Your task to perform on an android device: Clear all items from cart on walmart. Search for "amazon basics triple a" on walmart, select the first entry, add it to the cart, then select checkout. Image 0: 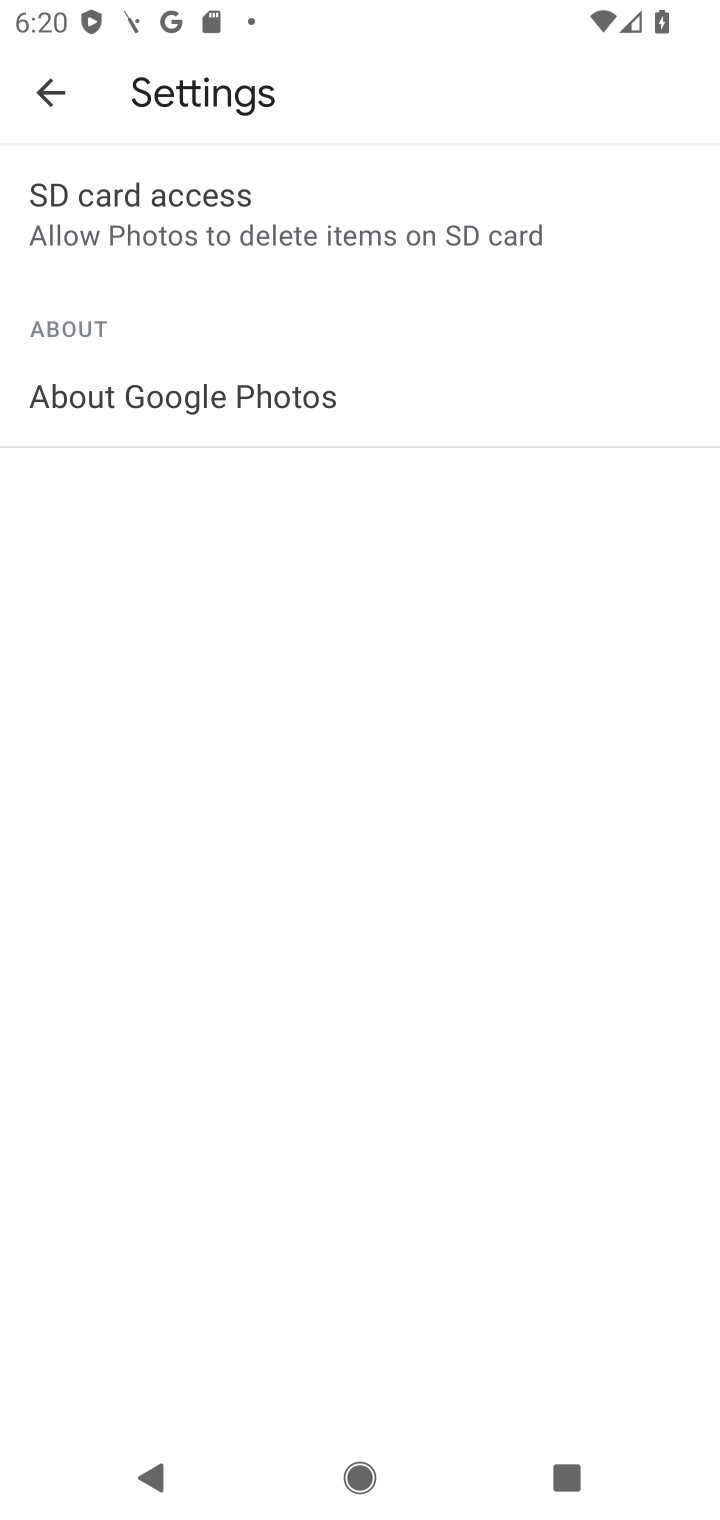
Step 0: press home button
Your task to perform on an android device: Clear all items from cart on walmart. Search for "amazon basics triple a" on walmart, select the first entry, add it to the cart, then select checkout. Image 1: 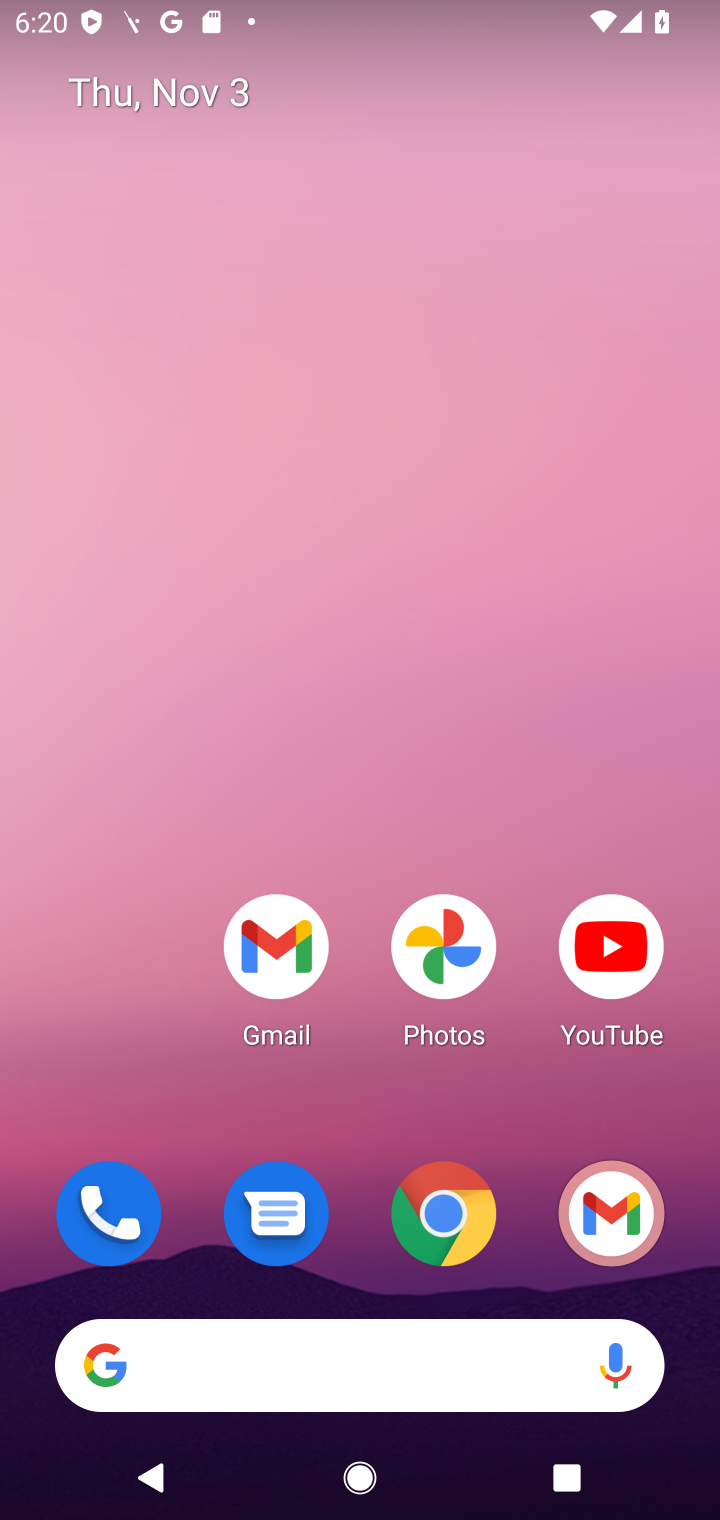
Step 1: click (458, 1219)
Your task to perform on an android device: Clear all items from cart on walmart. Search for "amazon basics triple a" on walmart, select the first entry, add it to the cart, then select checkout. Image 2: 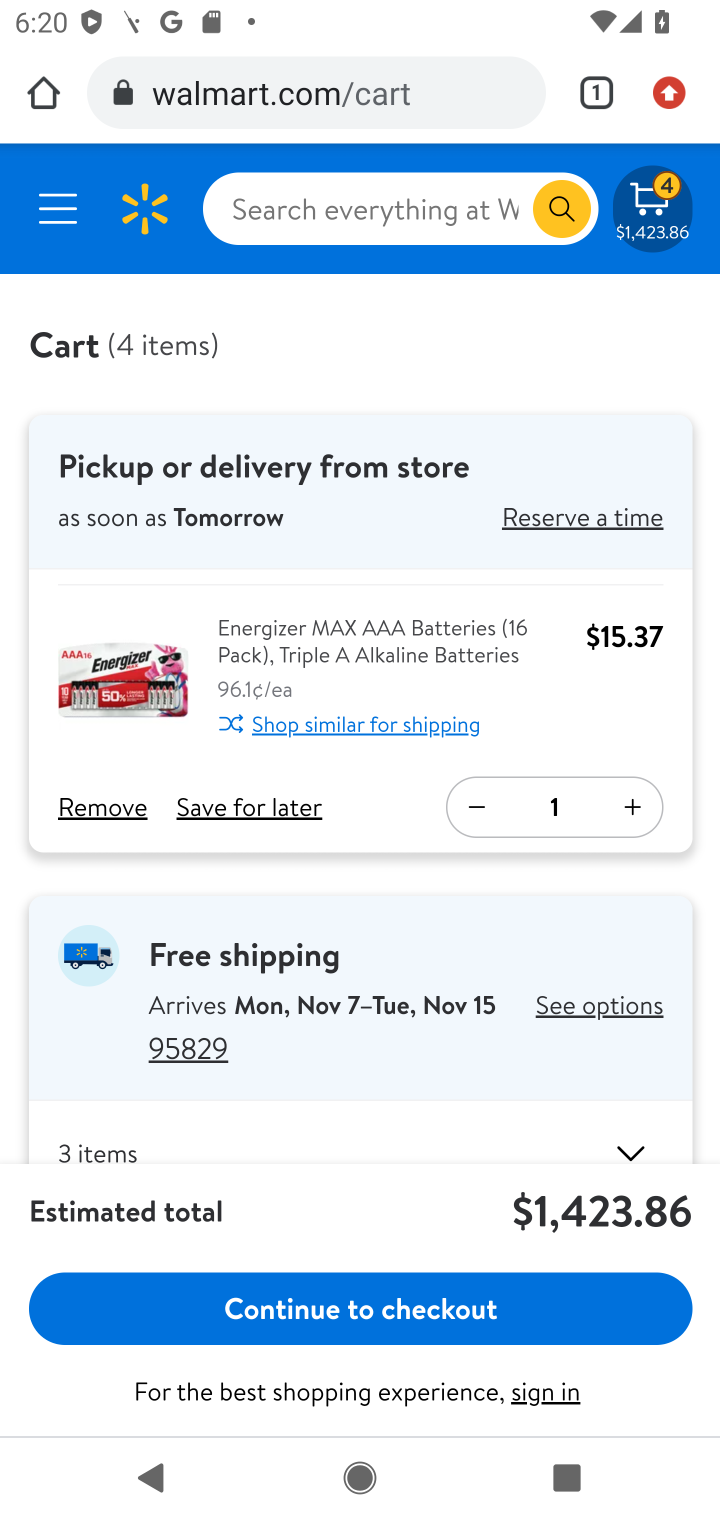
Step 2: click (655, 227)
Your task to perform on an android device: Clear all items from cart on walmart. Search for "amazon basics triple a" on walmart, select the first entry, add it to the cart, then select checkout. Image 3: 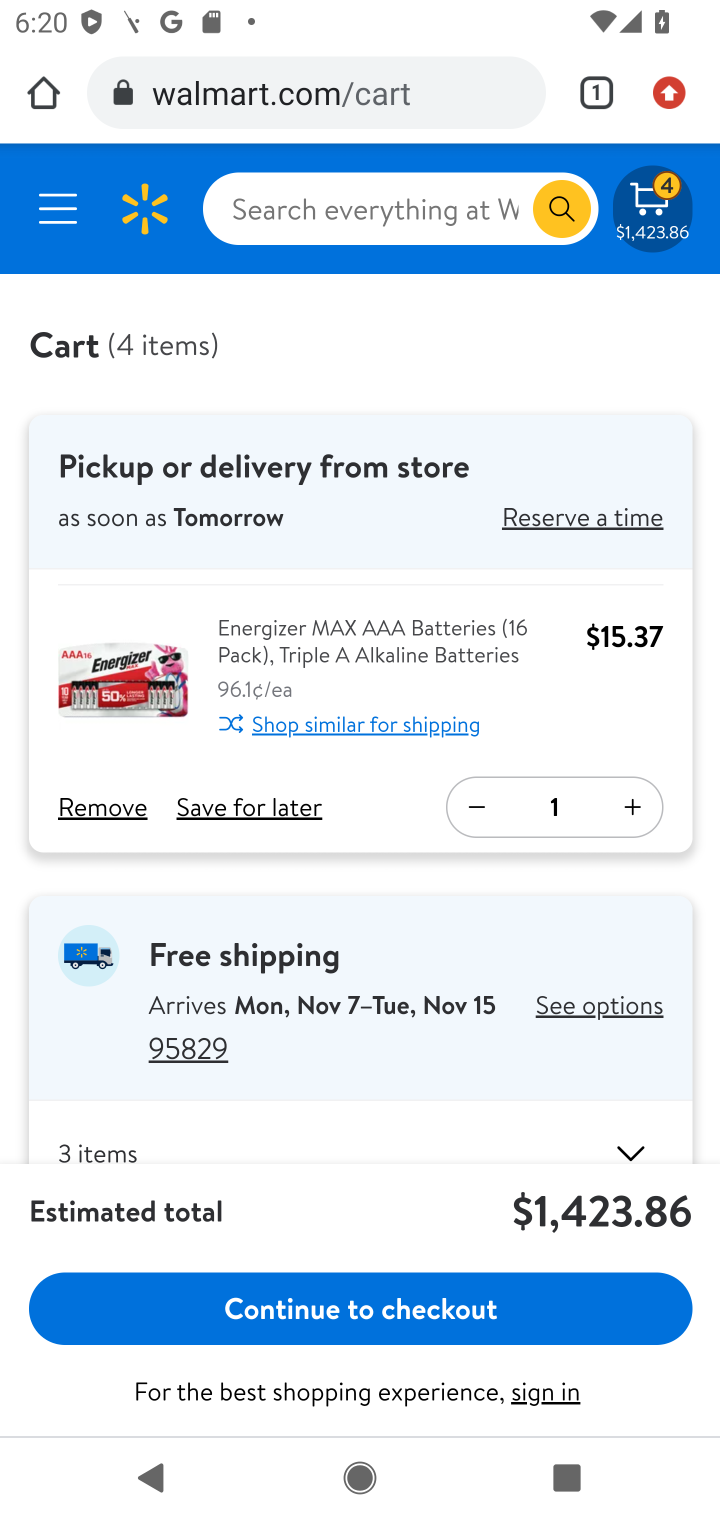
Step 3: click (106, 809)
Your task to perform on an android device: Clear all items from cart on walmart. Search for "amazon basics triple a" on walmart, select the first entry, add it to the cart, then select checkout. Image 4: 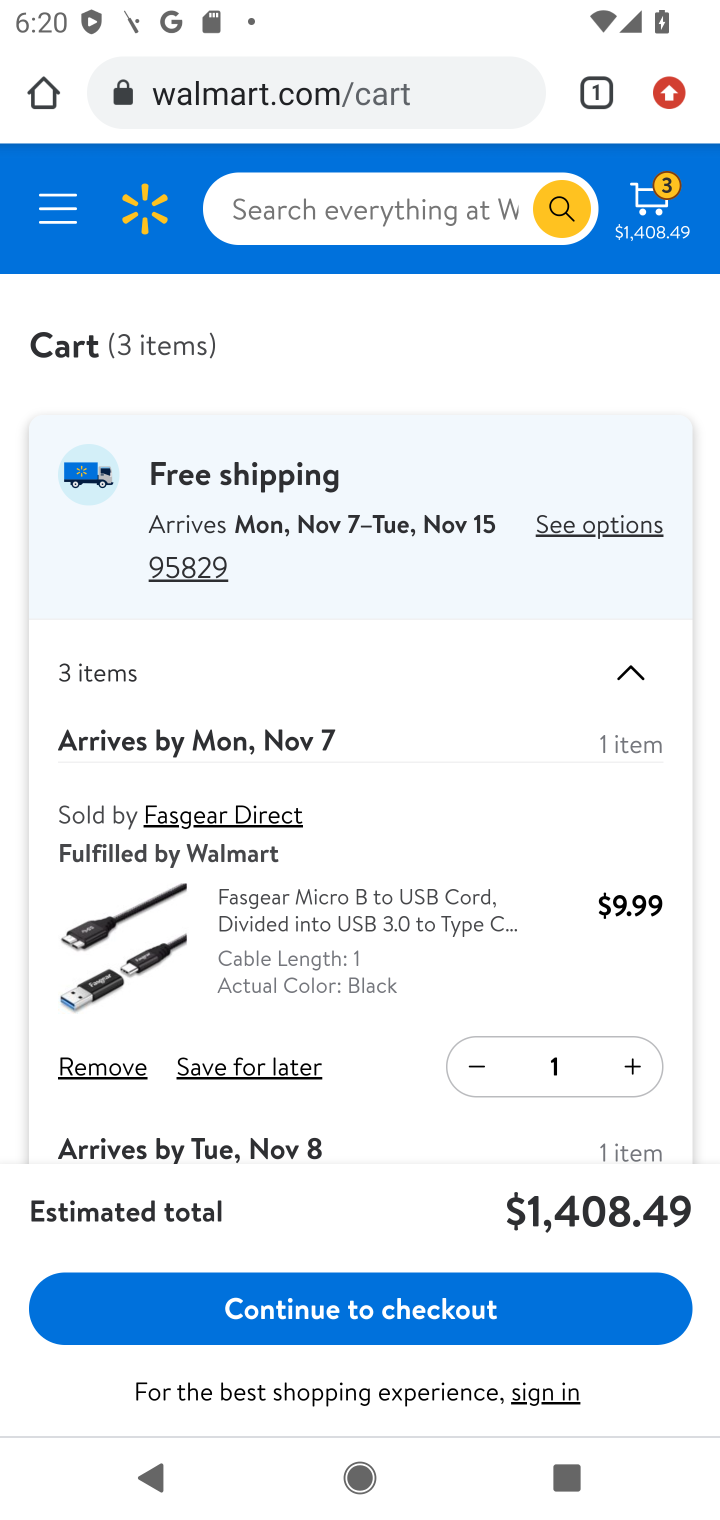
Step 4: click (126, 1066)
Your task to perform on an android device: Clear all items from cart on walmart. Search for "amazon basics triple a" on walmart, select the first entry, add it to the cart, then select checkout. Image 5: 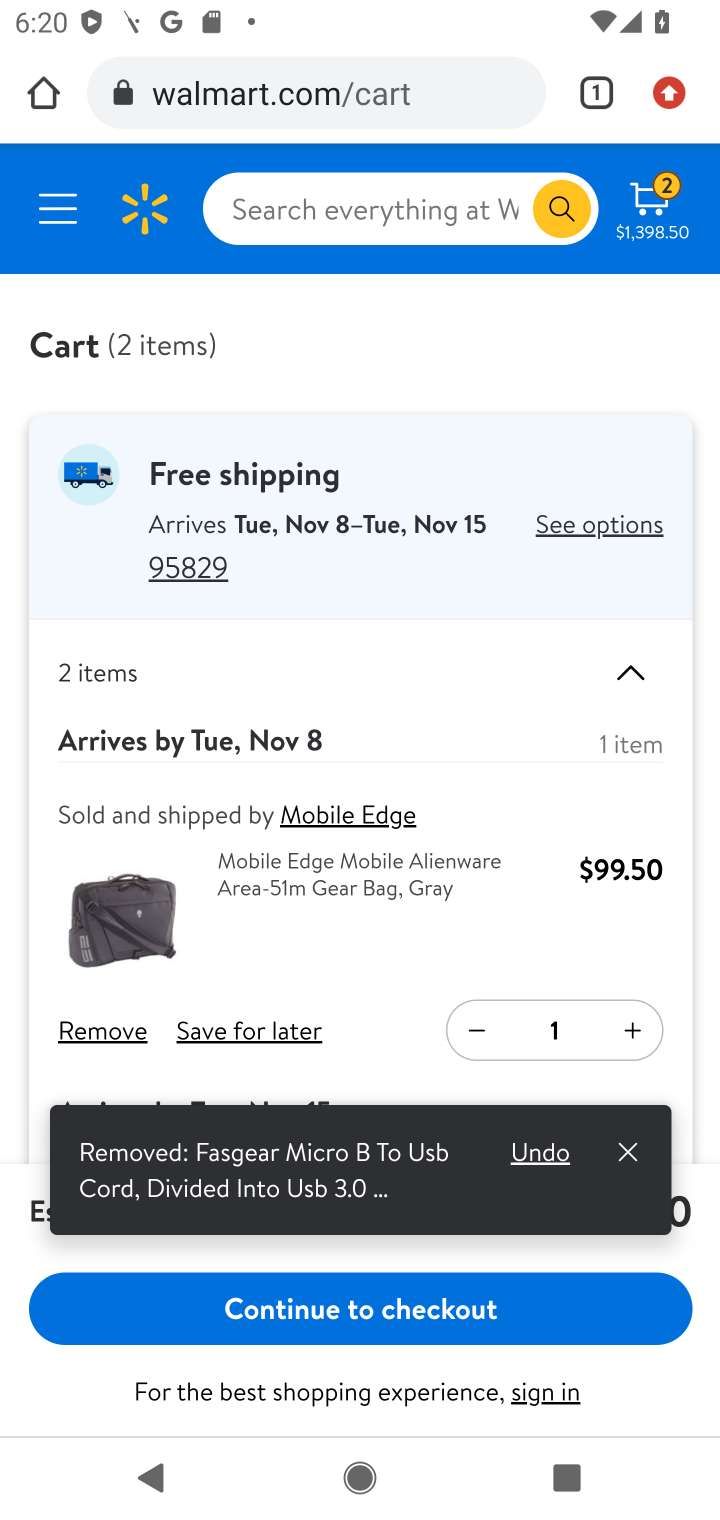
Step 5: click (94, 1034)
Your task to perform on an android device: Clear all items from cart on walmart. Search for "amazon basics triple a" on walmart, select the first entry, add it to the cart, then select checkout. Image 6: 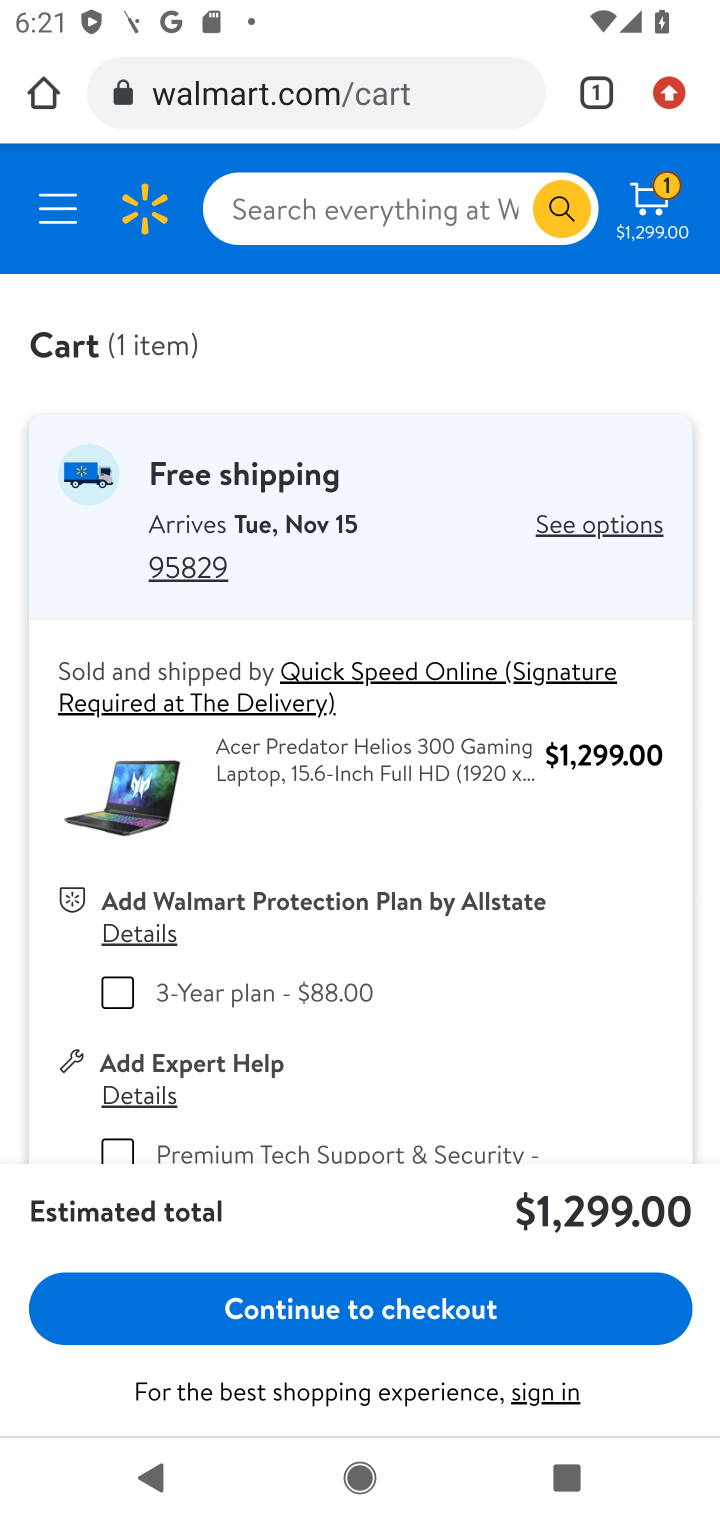
Step 6: drag from (451, 1059) to (476, 765)
Your task to perform on an android device: Clear all items from cart on walmart. Search for "amazon basics triple a" on walmart, select the first entry, add it to the cart, then select checkout. Image 7: 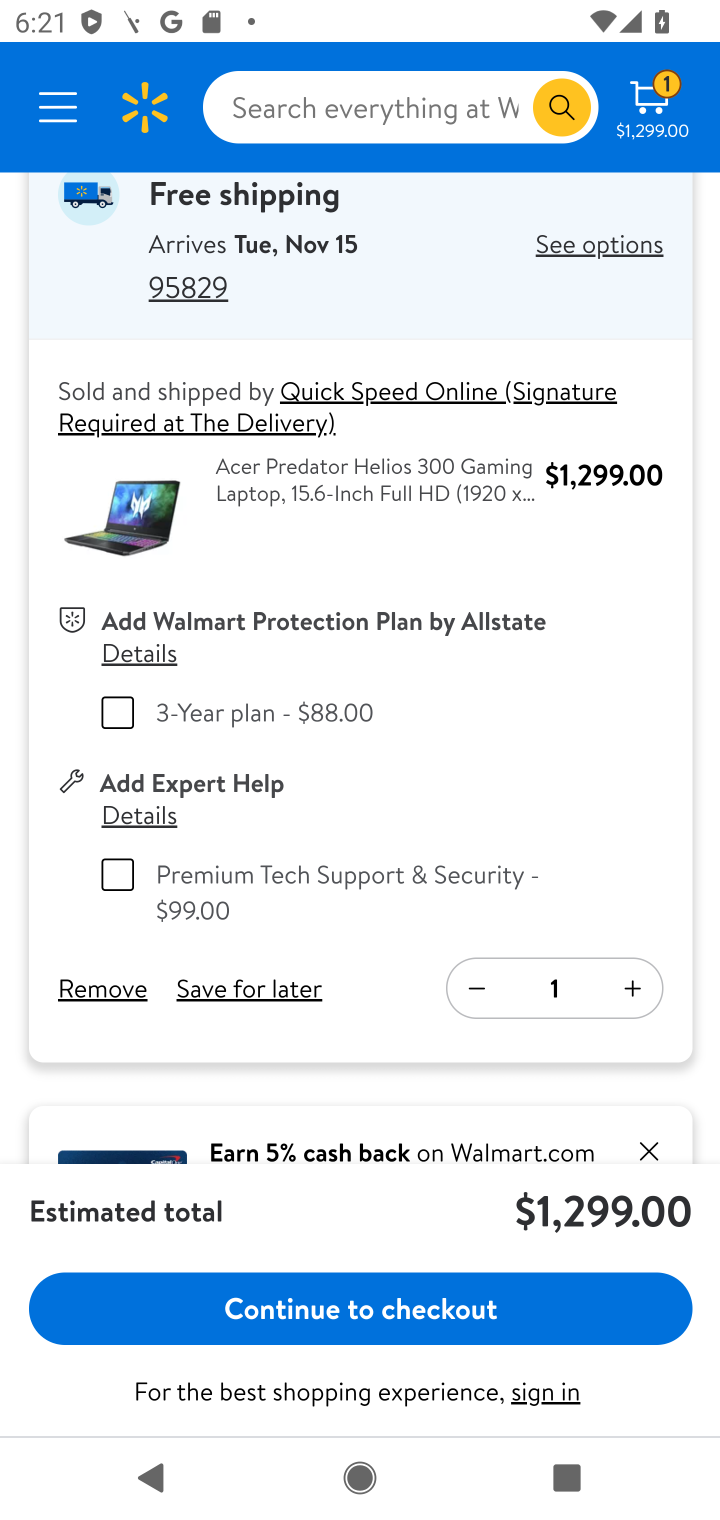
Step 7: click (98, 991)
Your task to perform on an android device: Clear all items from cart on walmart. Search for "amazon basics triple a" on walmart, select the first entry, add it to the cart, then select checkout. Image 8: 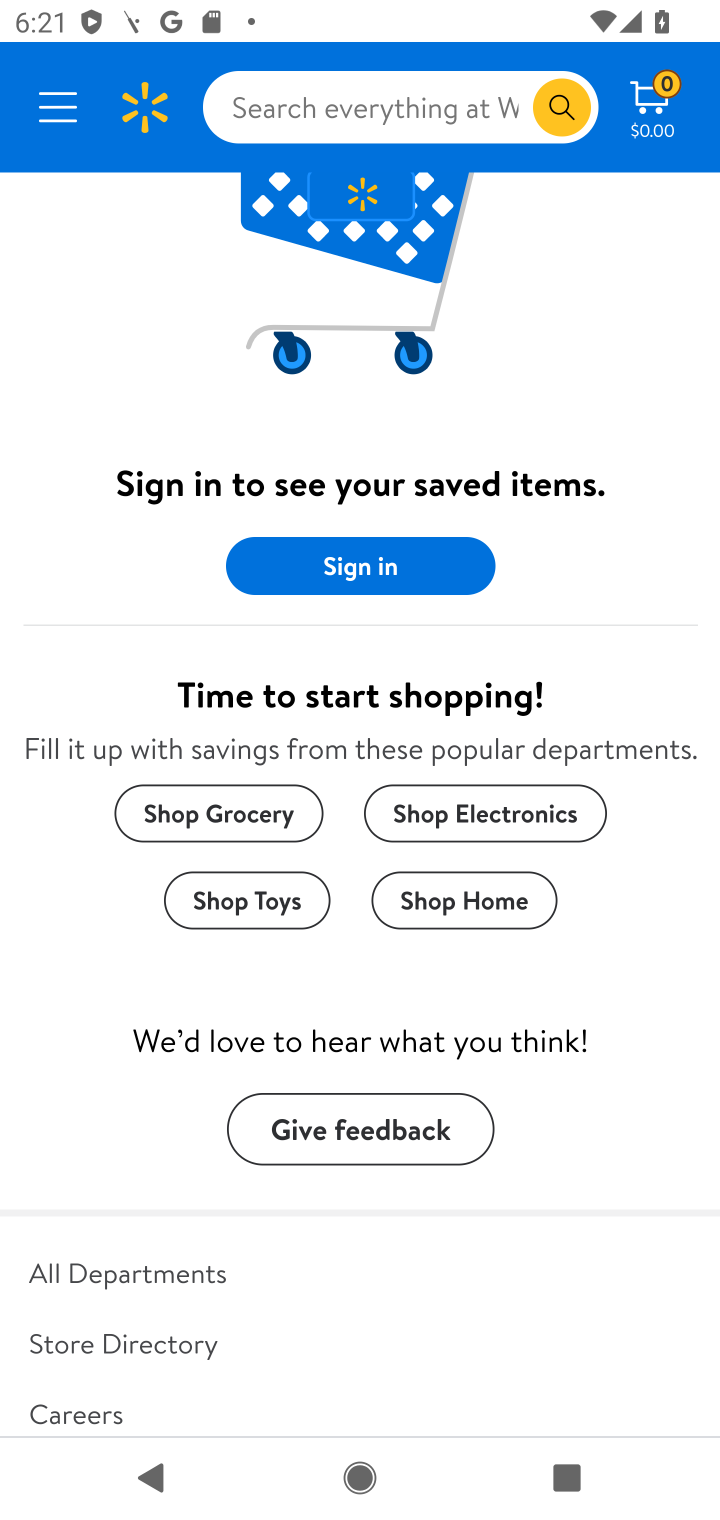
Step 8: click (401, 121)
Your task to perform on an android device: Clear all items from cart on walmart. Search for "amazon basics triple a" on walmart, select the first entry, add it to the cart, then select checkout. Image 9: 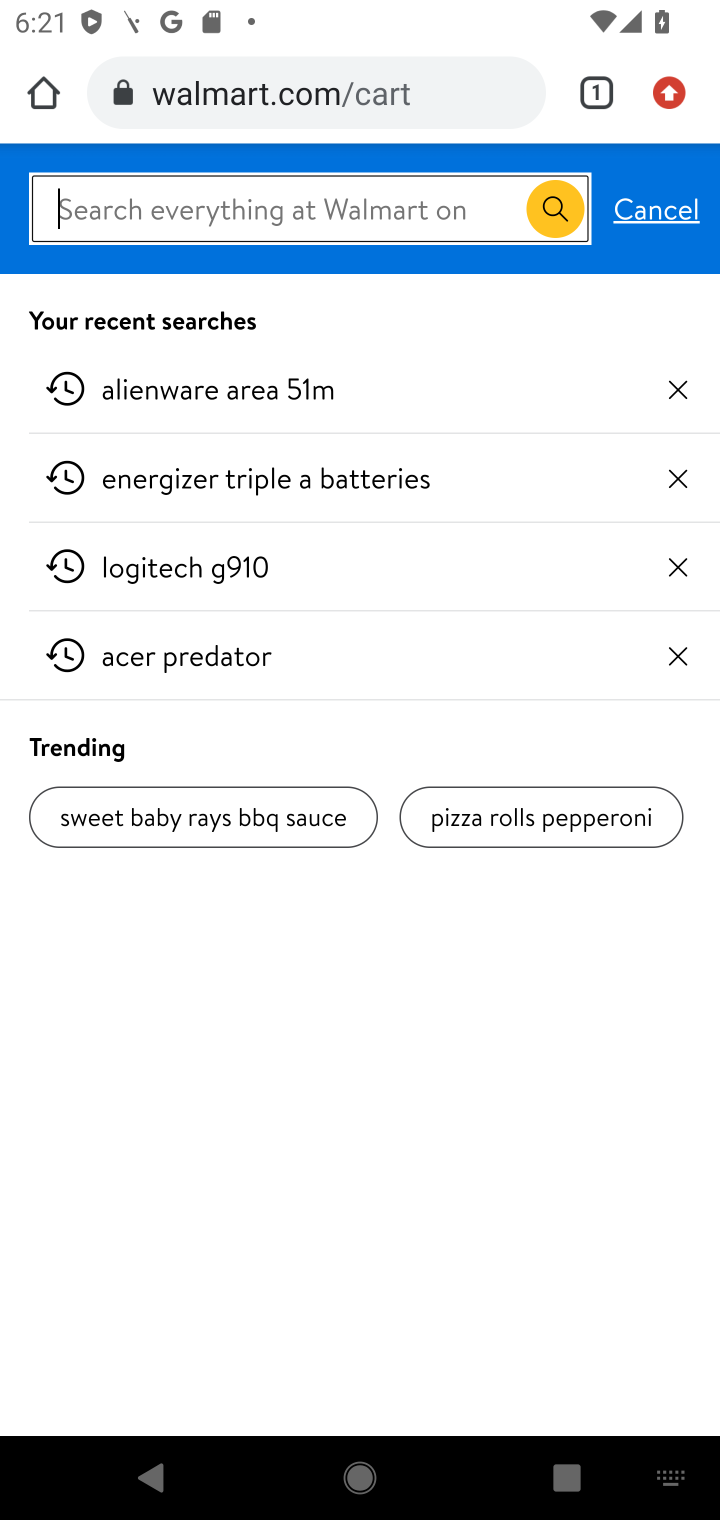
Step 9: type "amazon basics triple a"
Your task to perform on an android device: Clear all items from cart on walmart. Search for "amazon basics triple a" on walmart, select the first entry, add it to the cart, then select checkout. Image 10: 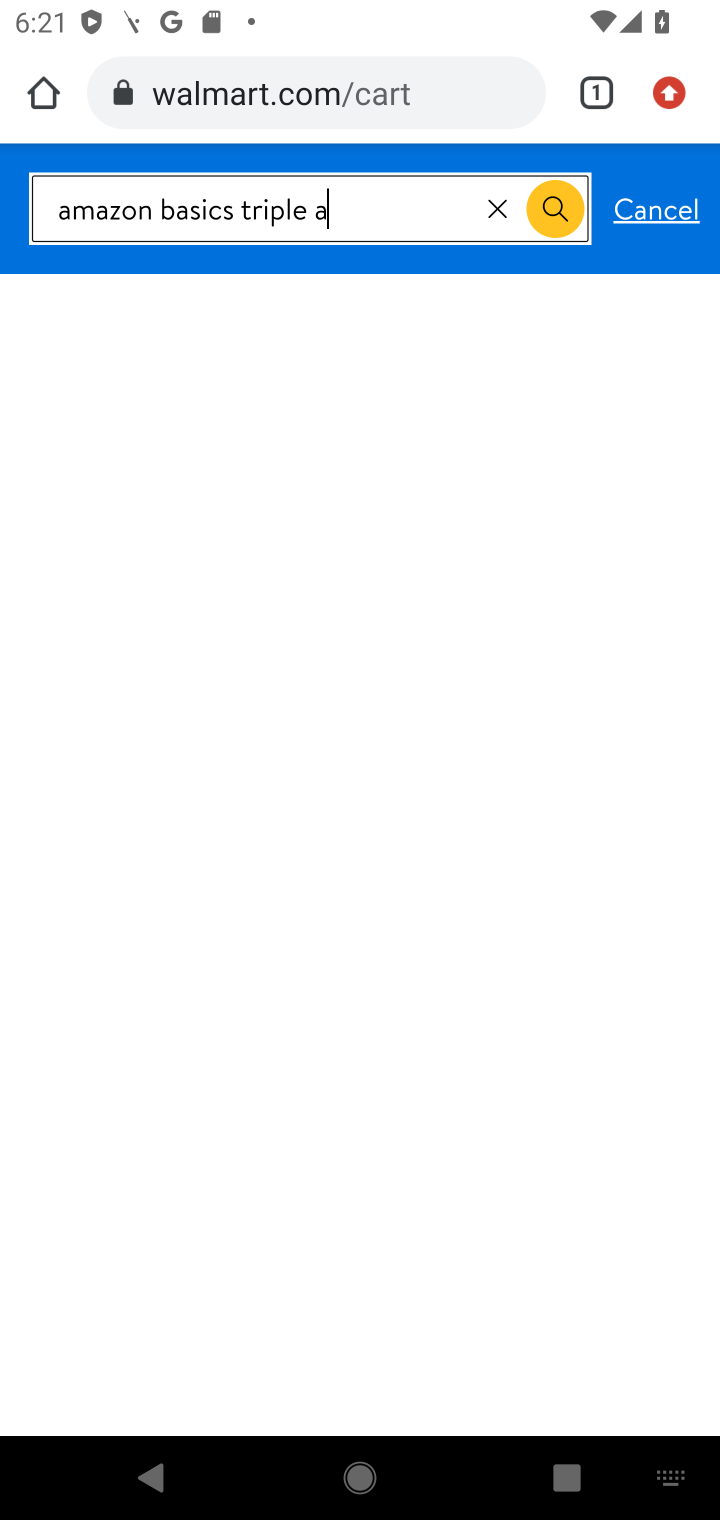
Step 10: click (555, 218)
Your task to perform on an android device: Clear all items from cart on walmart. Search for "amazon basics triple a" on walmart, select the first entry, add it to the cart, then select checkout. Image 11: 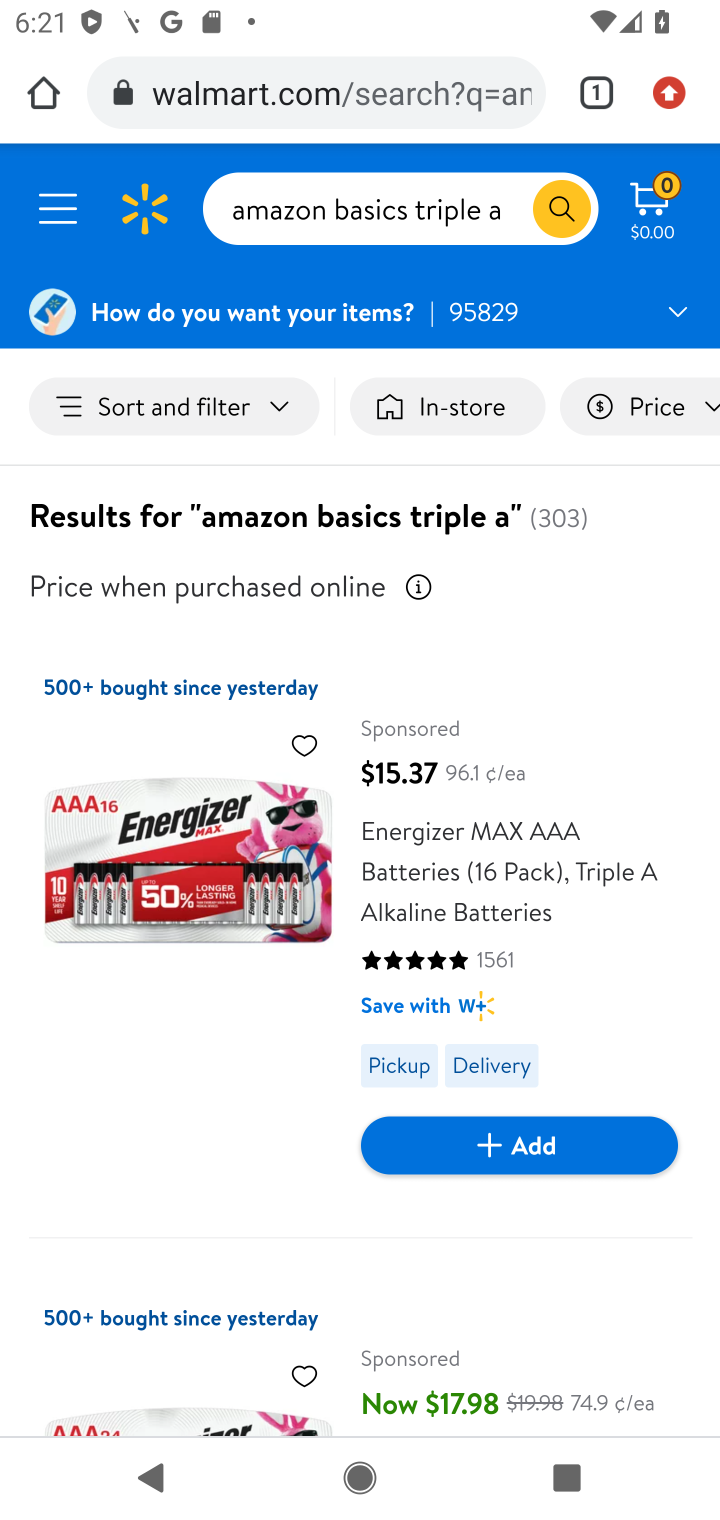
Step 11: task complete